Your task to perform on an android device: Open Google Maps Image 0: 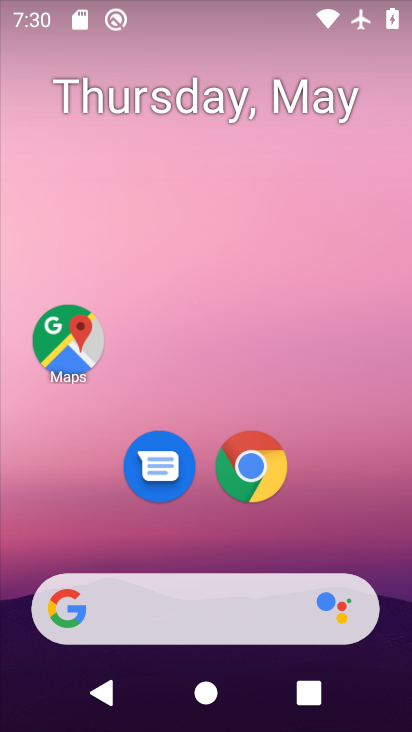
Step 0: click (91, 320)
Your task to perform on an android device: Open Google Maps Image 1: 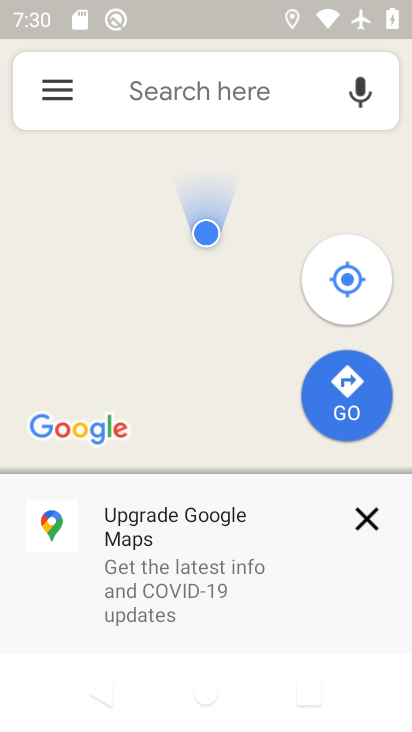
Step 1: task complete